Your task to perform on an android device: check android version Image 0: 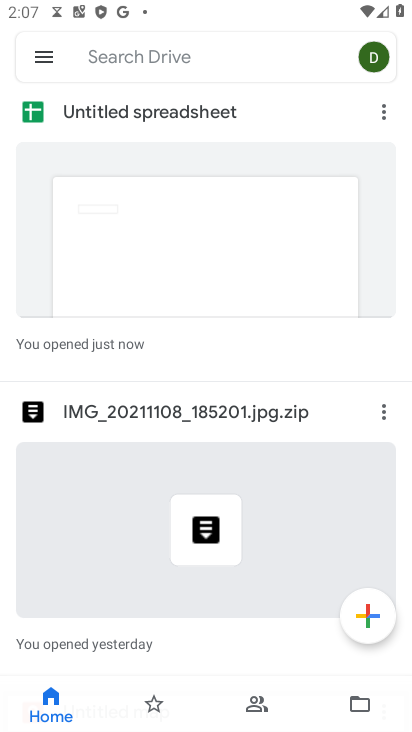
Step 0: press home button
Your task to perform on an android device: check android version Image 1: 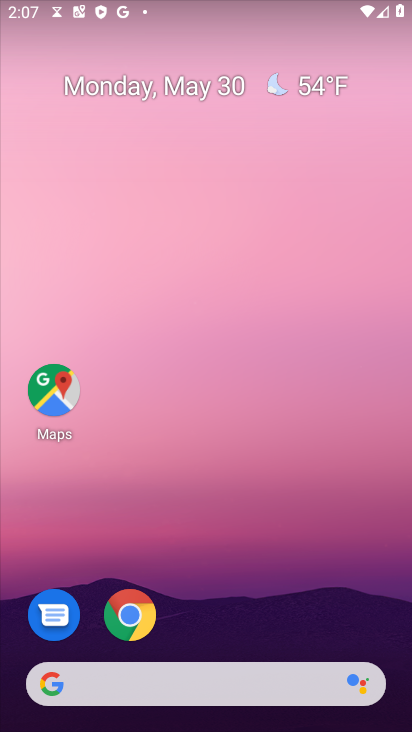
Step 1: drag from (259, 611) to (224, 87)
Your task to perform on an android device: check android version Image 2: 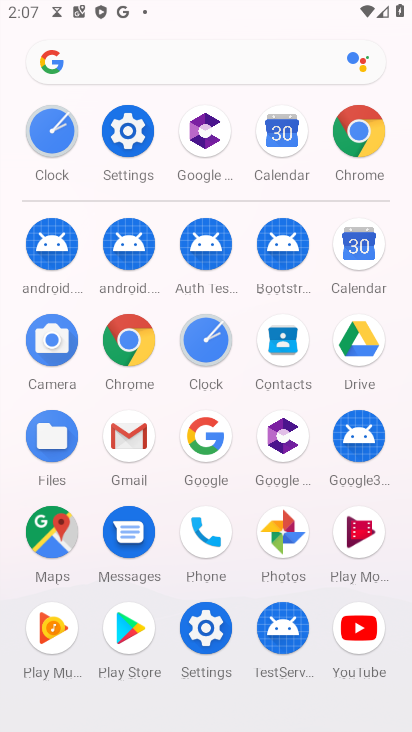
Step 2: click (119, 154)
Your task to perform on an android device: check android version Image 3: 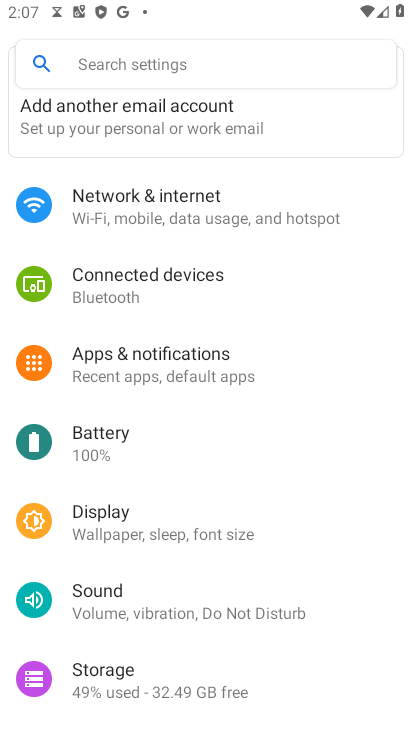
Step 3: task complete